Your task to perform on an android device: Open settings Image 0: 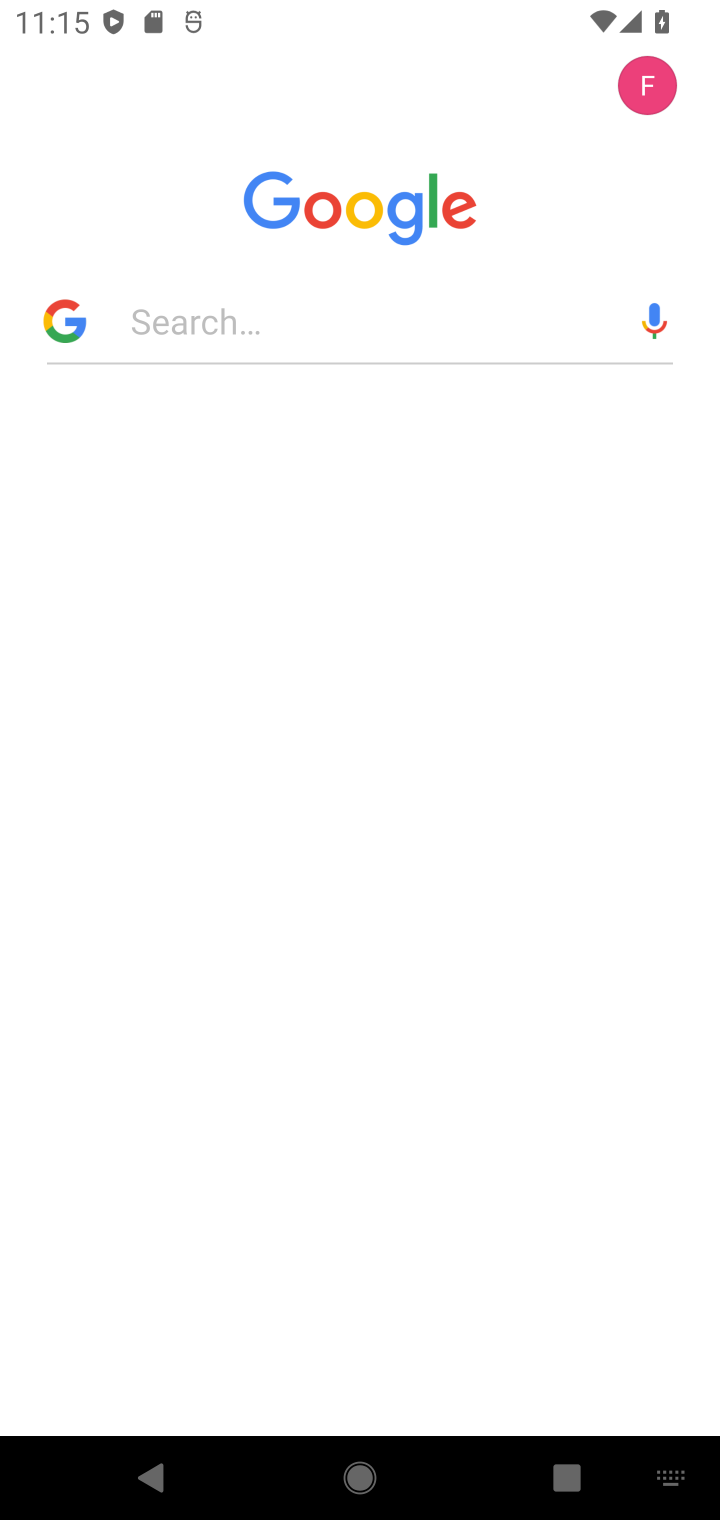
Step 0: press home button
Your task to perform on an android device: Open settings Image 1: 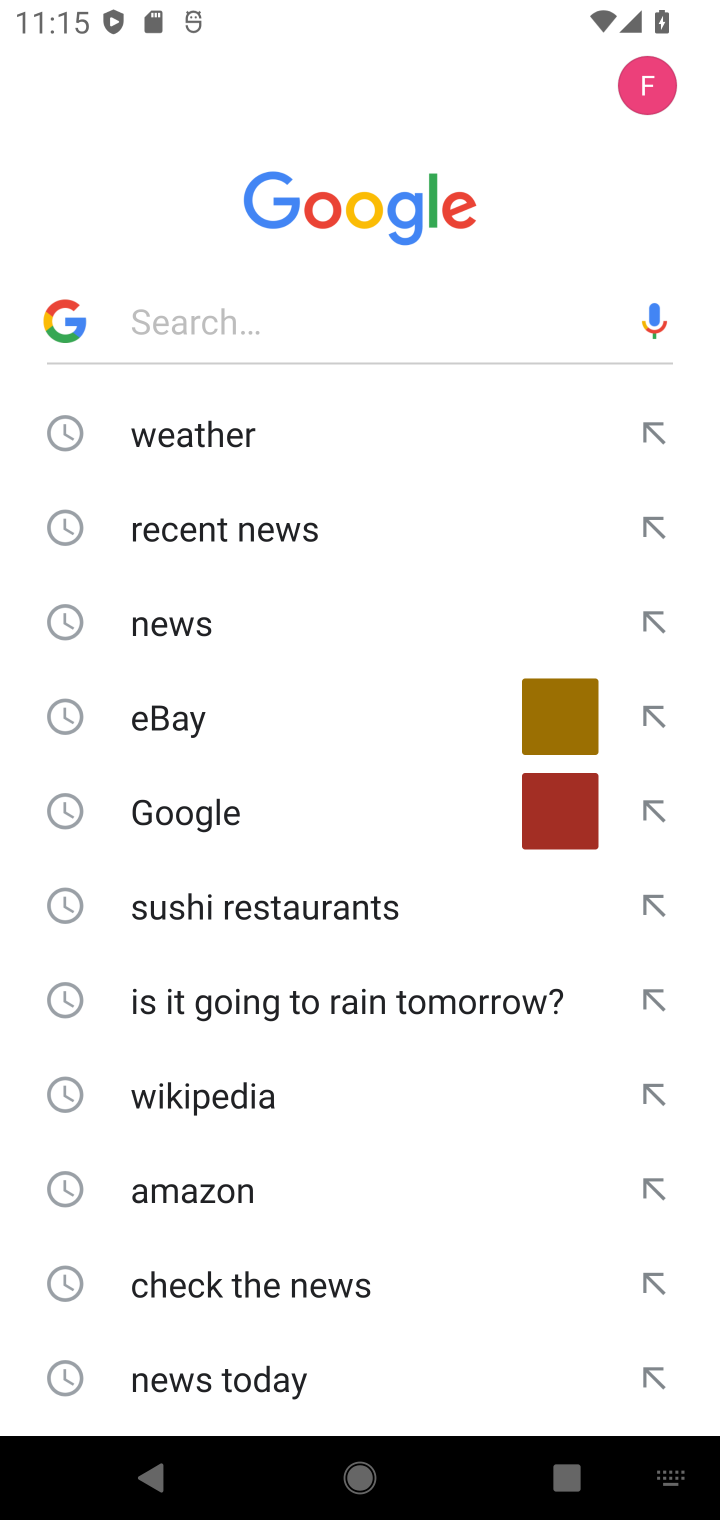
Step 1: press home button
Your task to perform on an android device: Open settings Image 2: 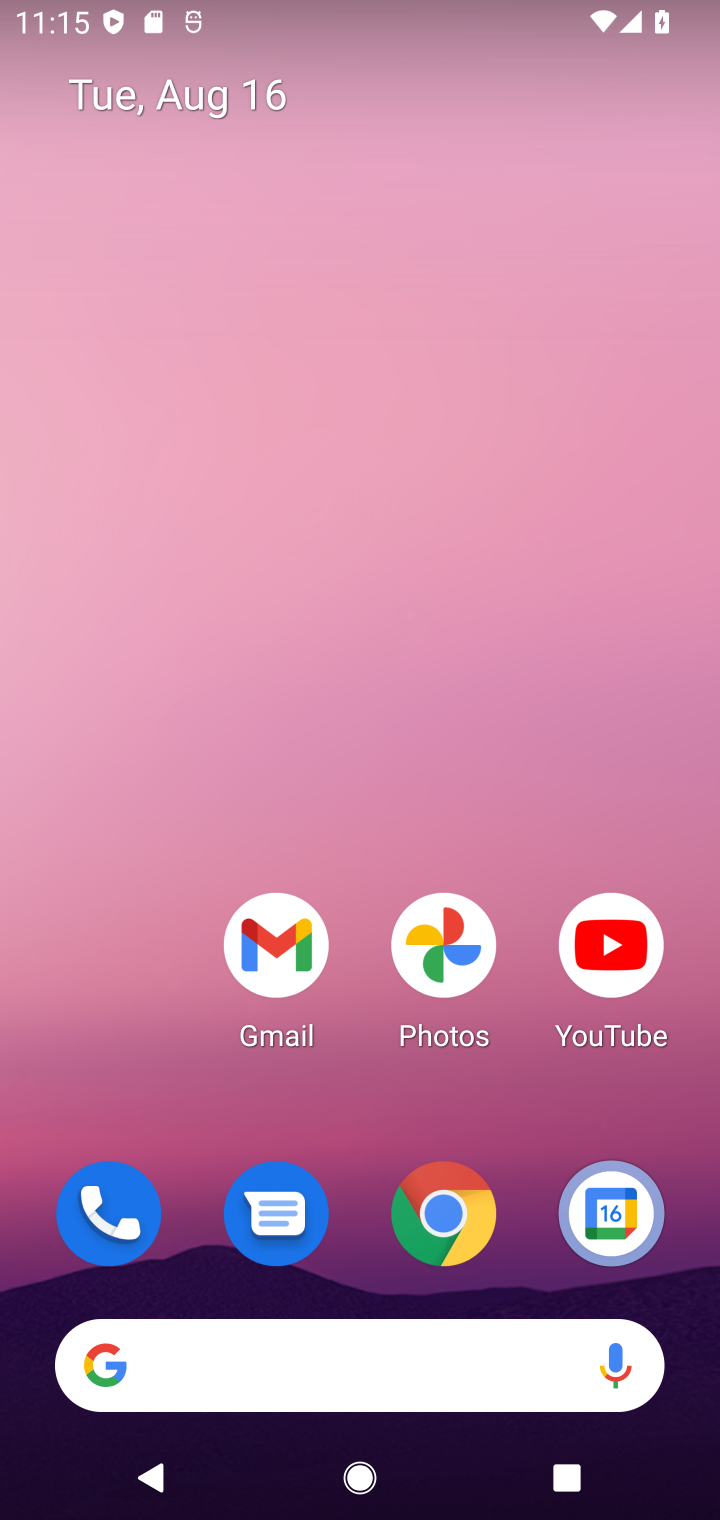
Step 2: drag from (533, 994) to (517, 15)
Your task to perform on an android device: Open settings Image 3: 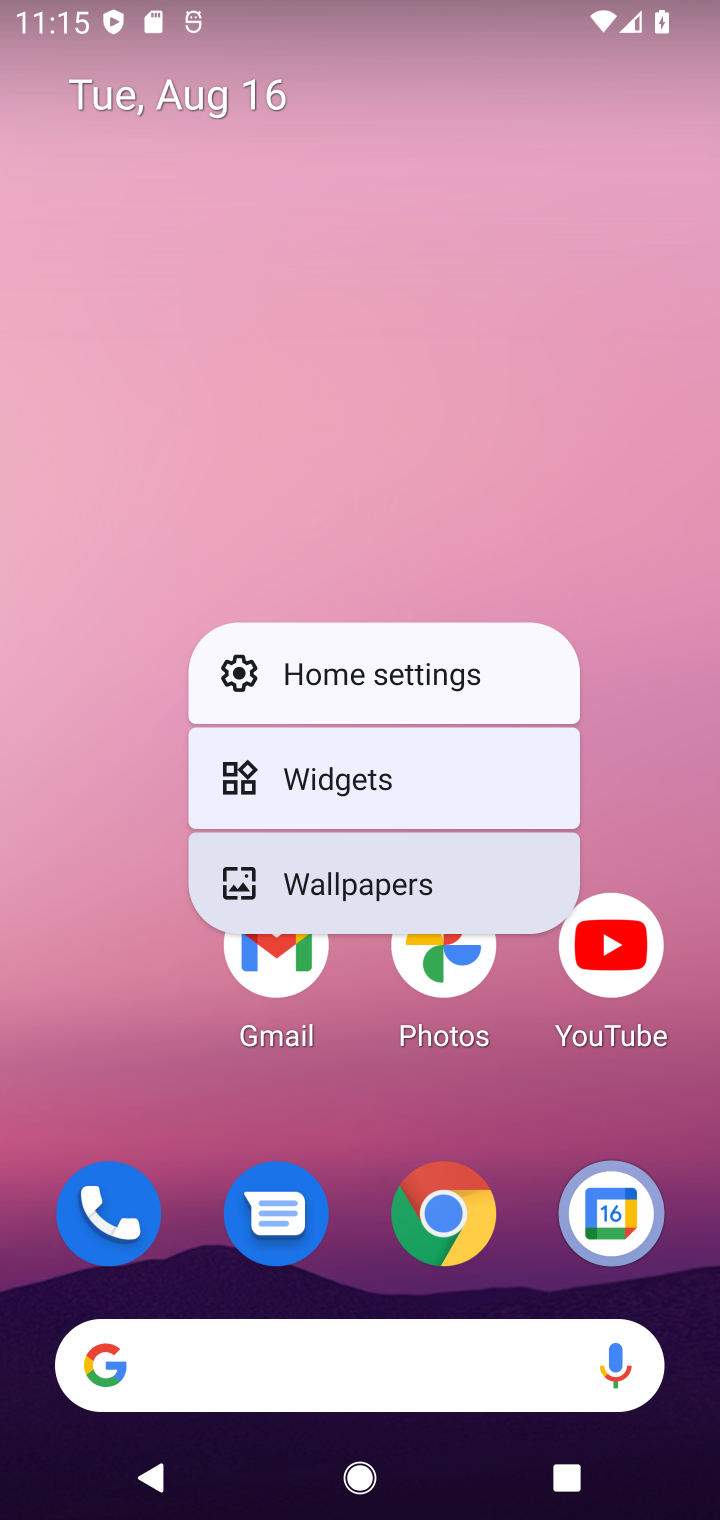
Step 3: click (337, 1094)
Your task to perform on an android device: Open settings Image 4: 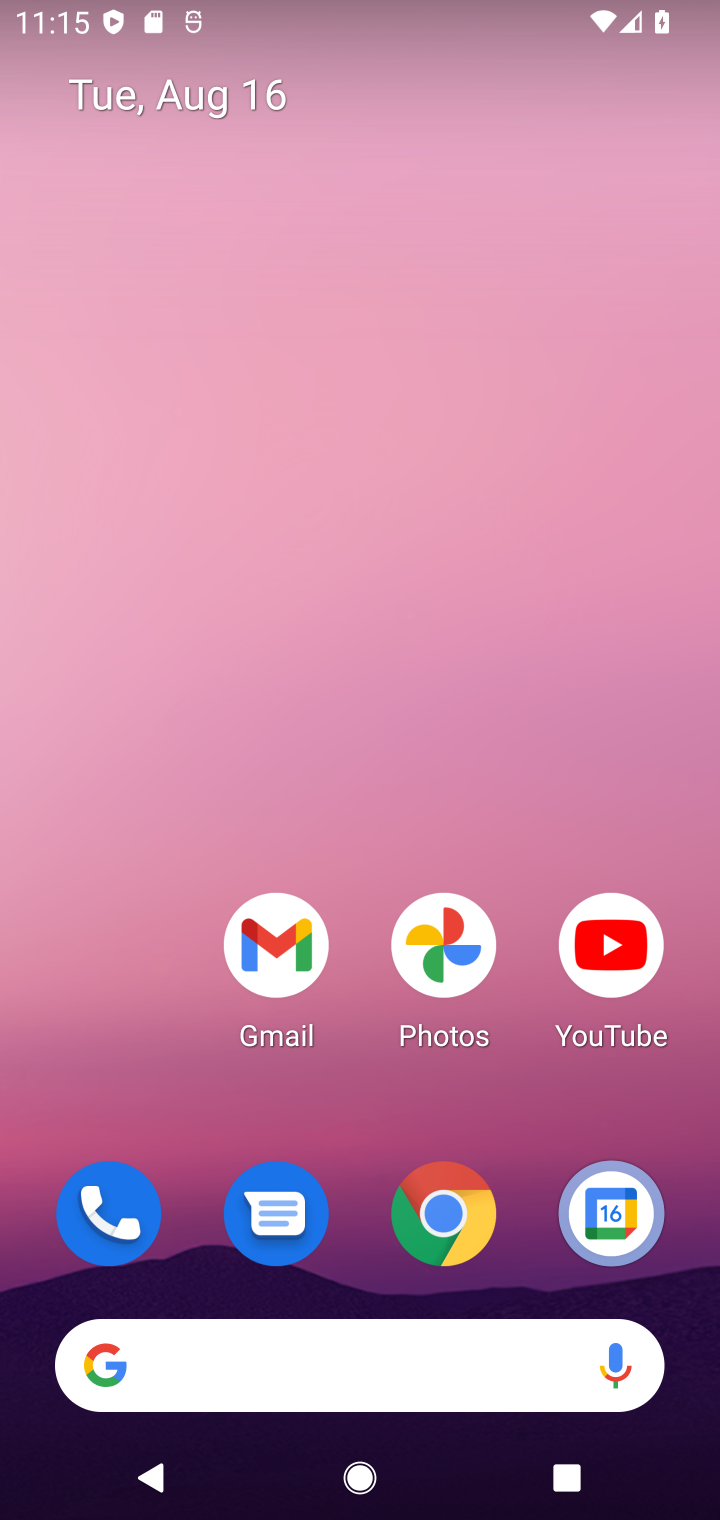
Step 4: click (341, 1121)
Your task to perform on an android device: Open settings Image 5: 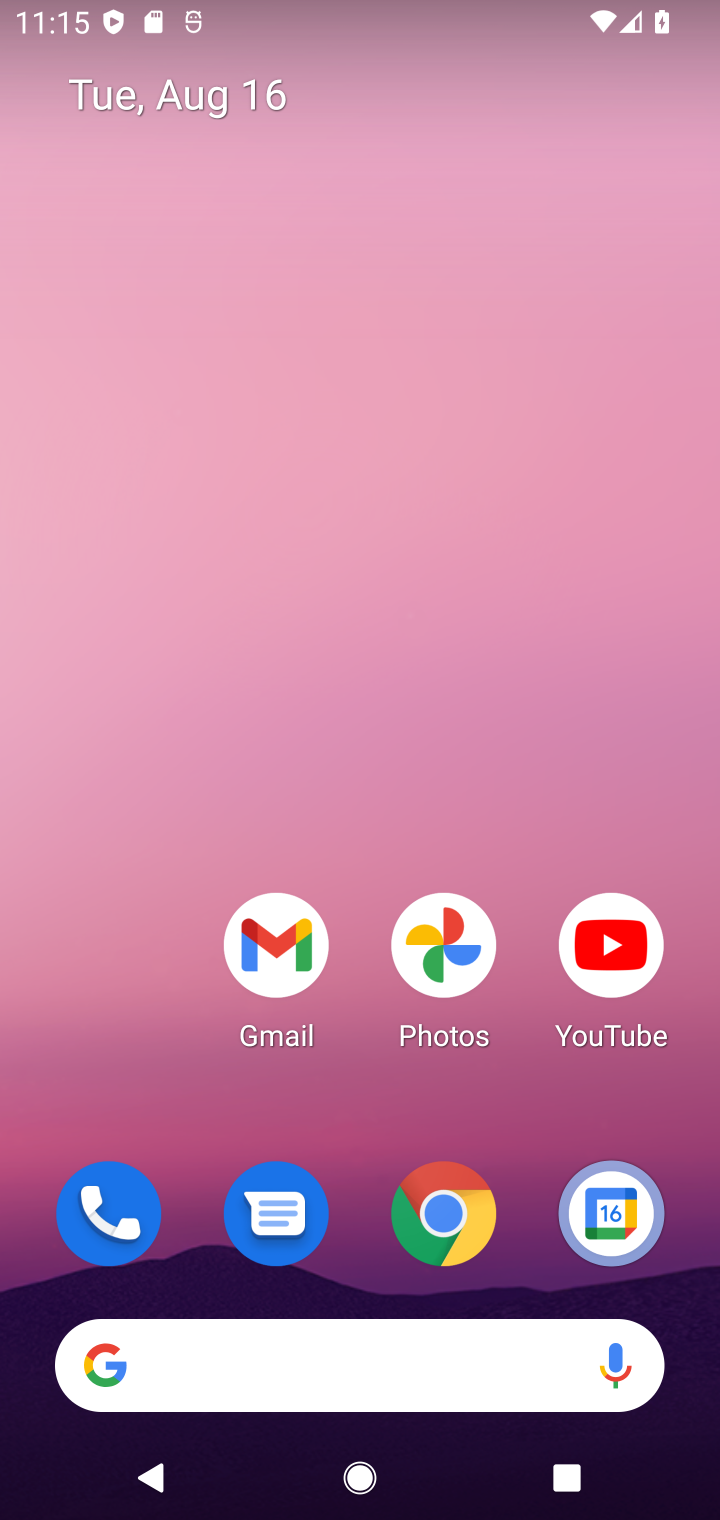
Step 5: drag from (400, 859) to (409, 105)
Your task to perform on an android device: Open settings Image 6: 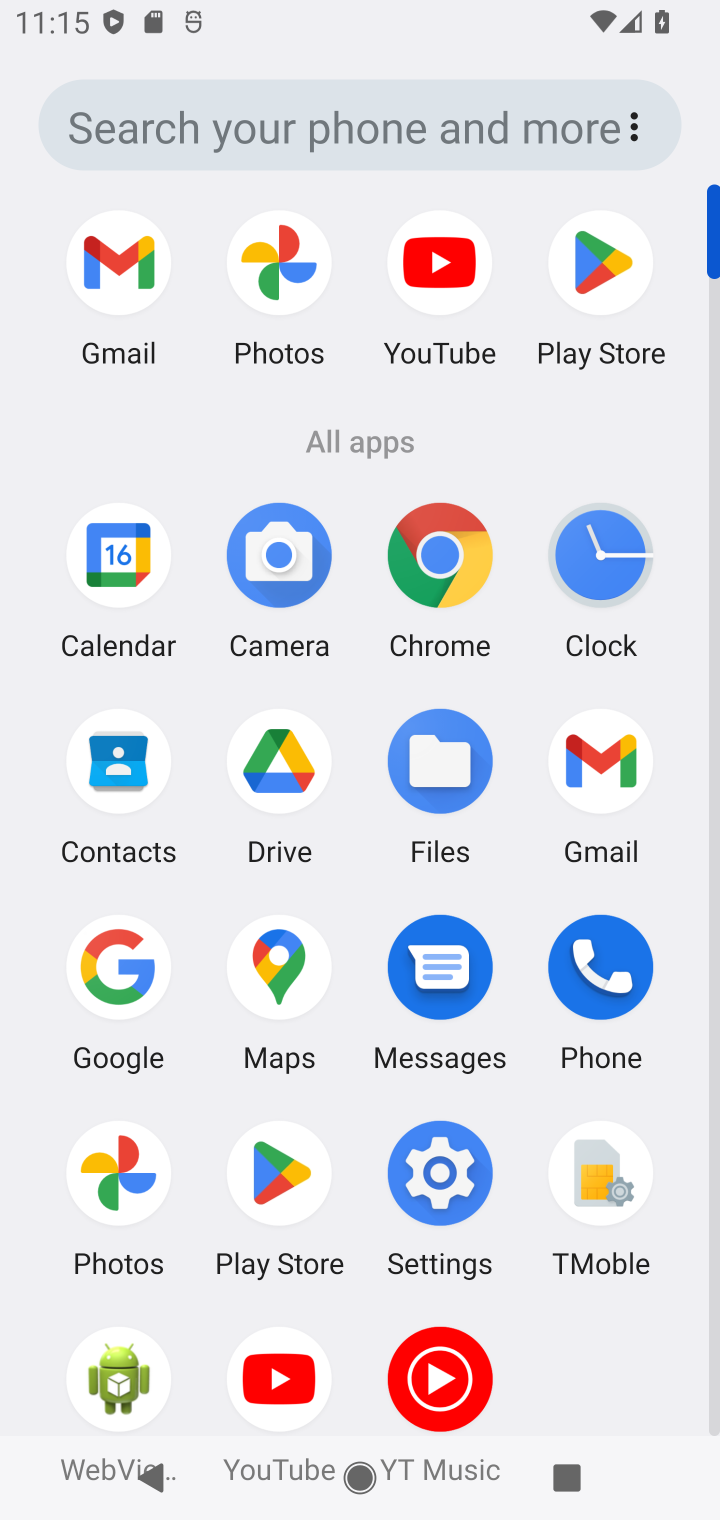
Step 6: click (467, 1159)
Your task to perform on an android device: Open settings Image 7: 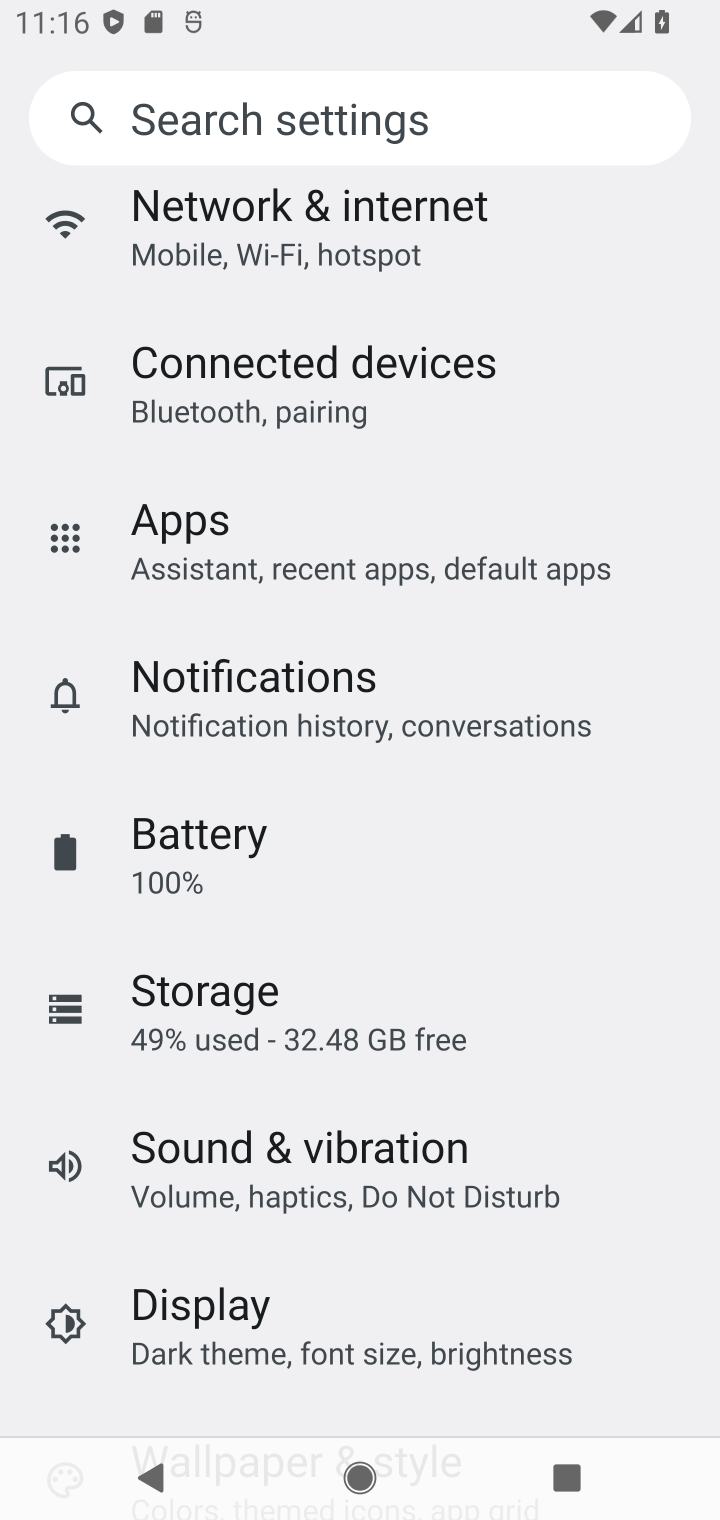
Step 7: task complete